Your task to perform on an android device: Check the weather Image 0: 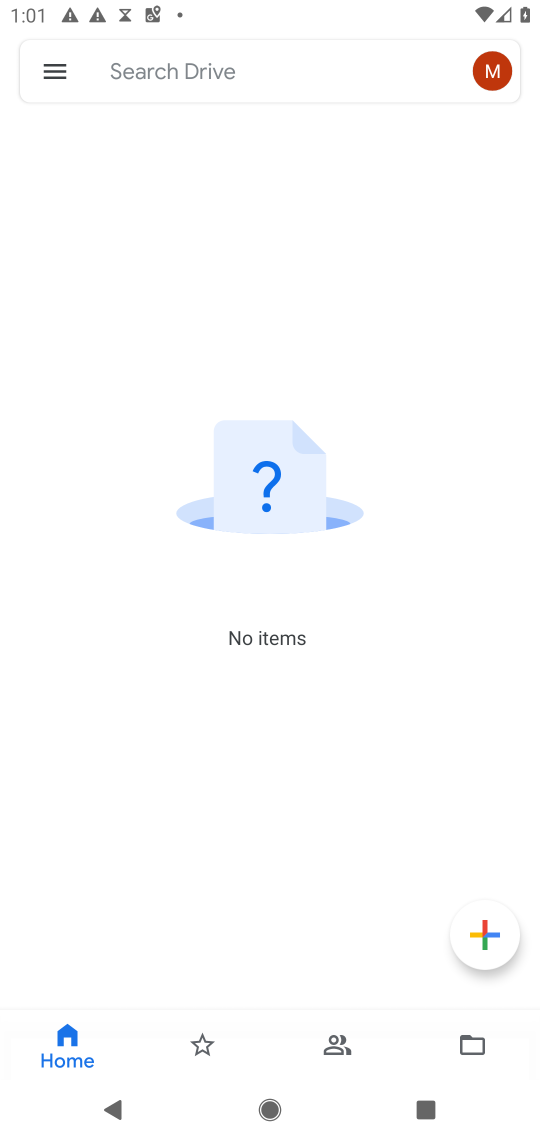
Step 0: press home button
Your task to perform on an android device: Check the weather Image 1: 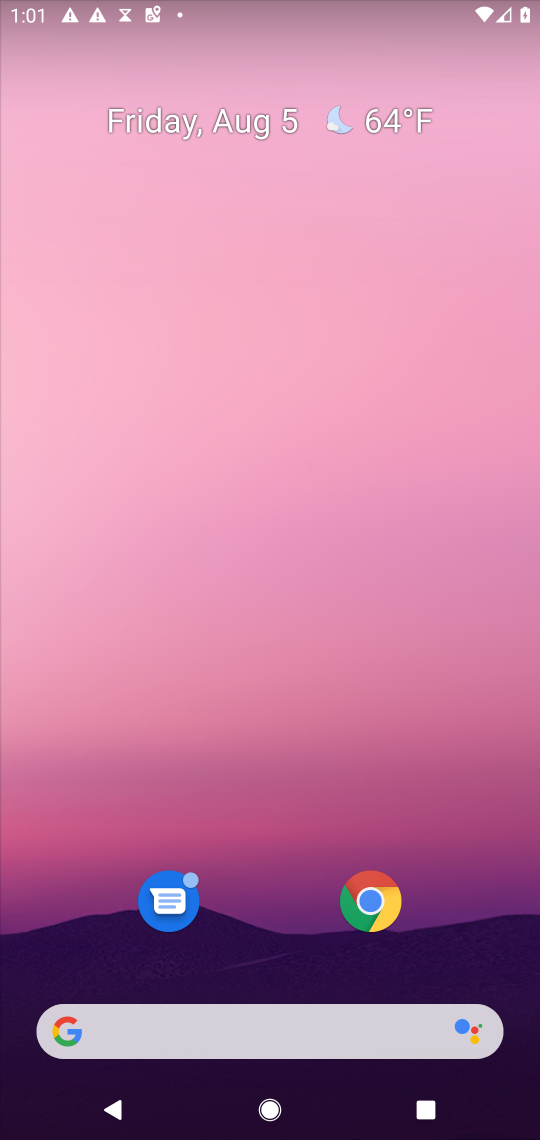
Step 1: click (229, 1031)
Your task to perform on an android device: Check the weather Image 2: 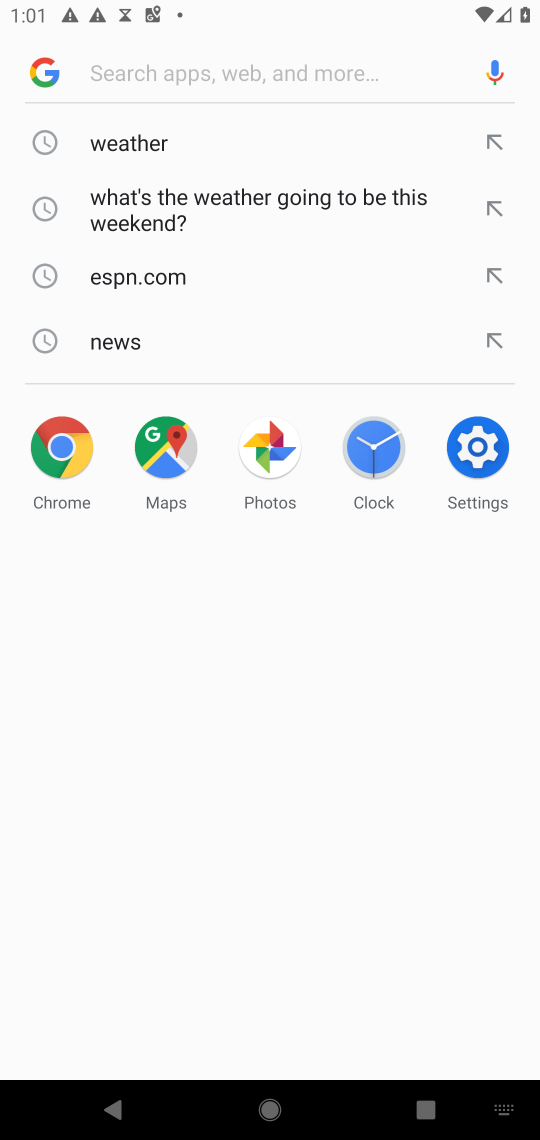
Step 2: type "weather"
Your task to perform on an android device: Check the weather Image 3: 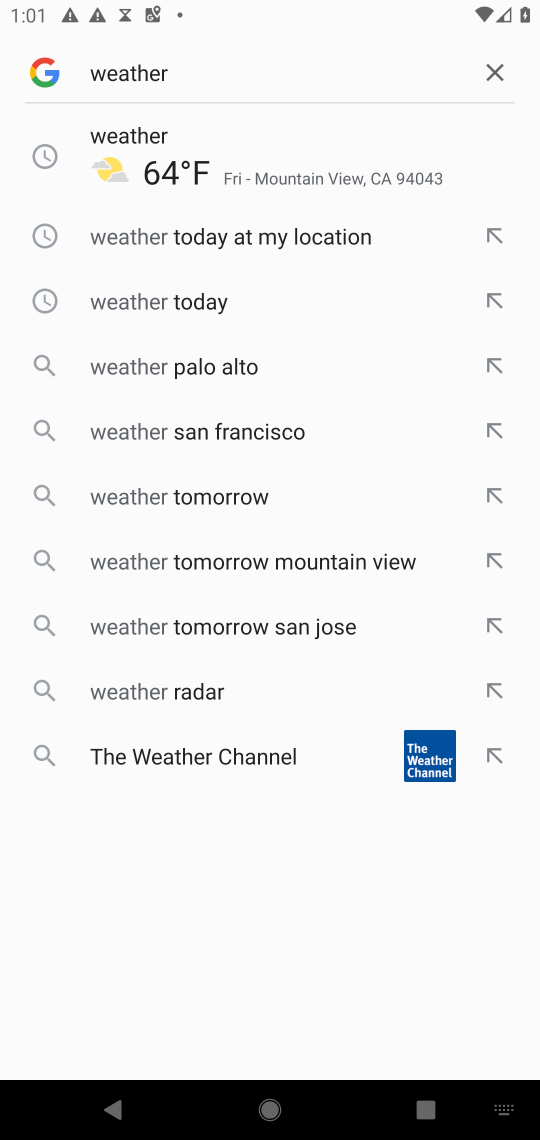
Step 3: click (258, 155)
Your task to perform on an android device: Check the weather Image 4: 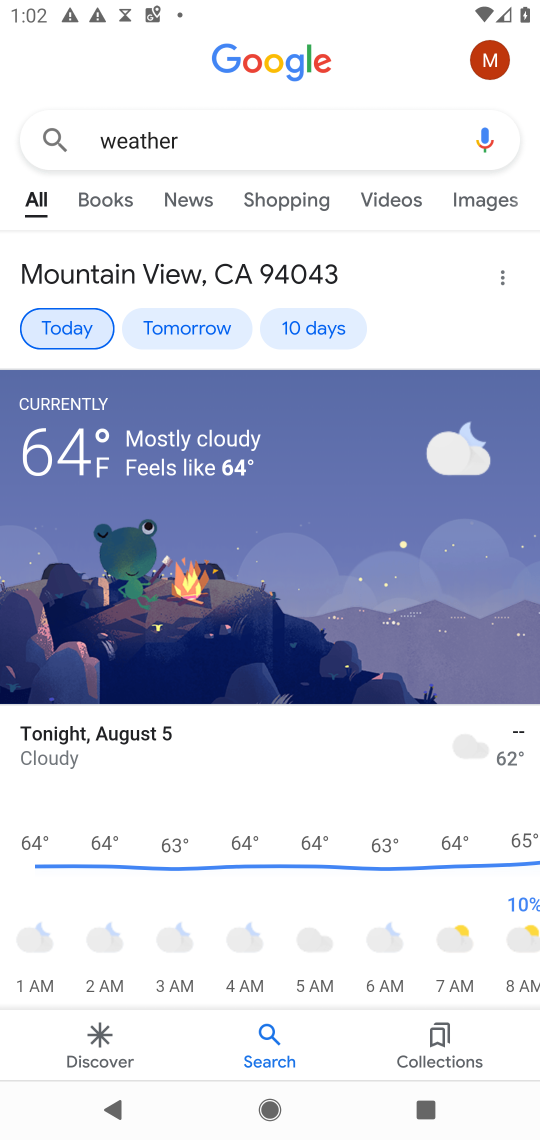
Step 4: task complete